Your task to perform on an android device: Search for Italian restaurants on Maps Image 0: 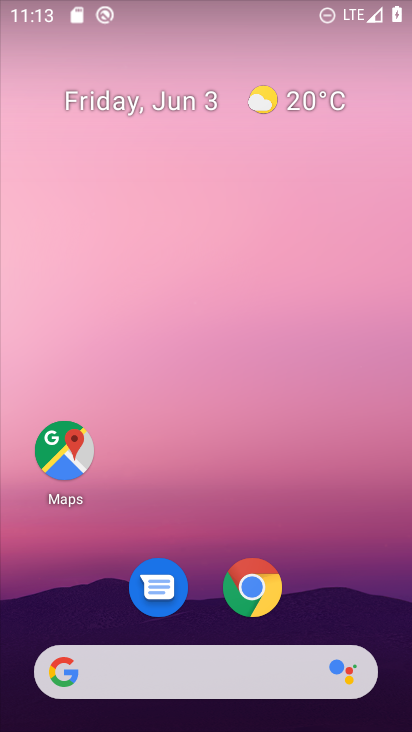
Step 0: click (58, 445)
Your task to perform on an android device: Search for Italian restaurants on Maps Image 1: 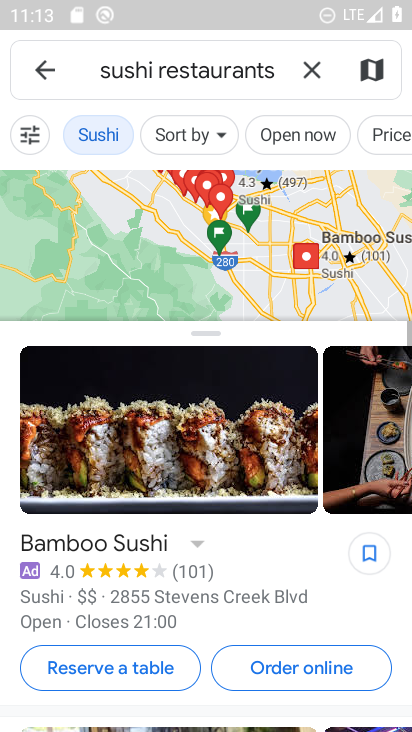
Step 1: click (319, 61)
Your task to perform on an android device: Search for Italian restaurants on Maps Image 2: 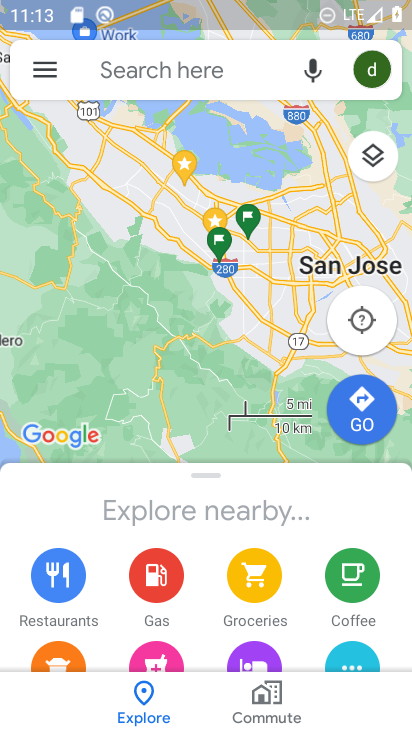
Step 2: click (178, 64)
Your task to perform on an android device: Search for Italian restaurants on Maps Image 3: 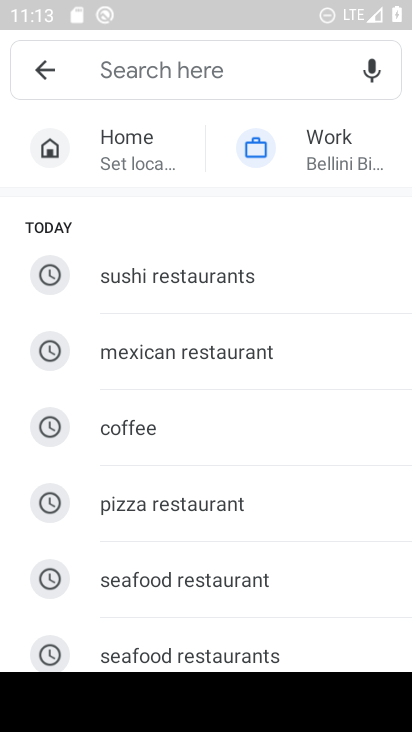
Step 3: type "italian restaurants"
Your task to perform on an android device: Search for Italian restaurants on Maps Image 4: 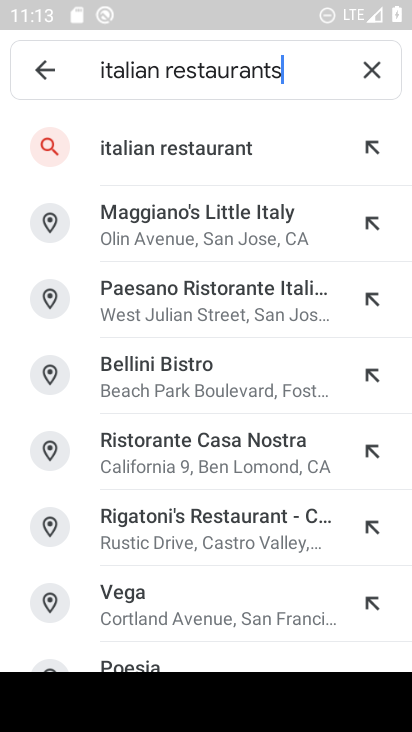
Step 4: click (198, 139)
Your task to perform on an android device: Search for Italian restaurants on Maps Image 5: 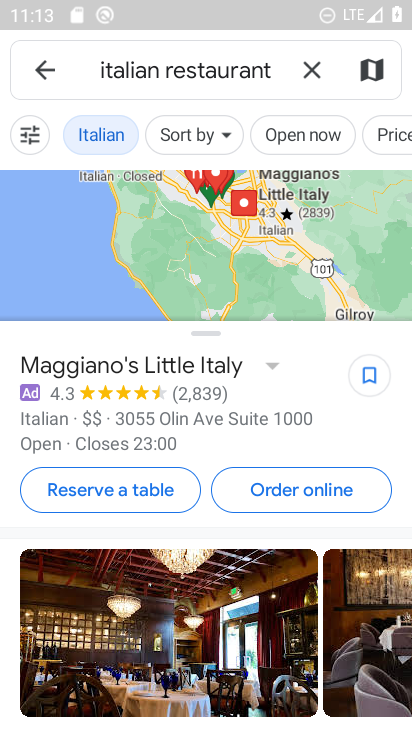
Step 5: task complete